Your task to perform on an android device: open a new tab in the chrome app Image 0: 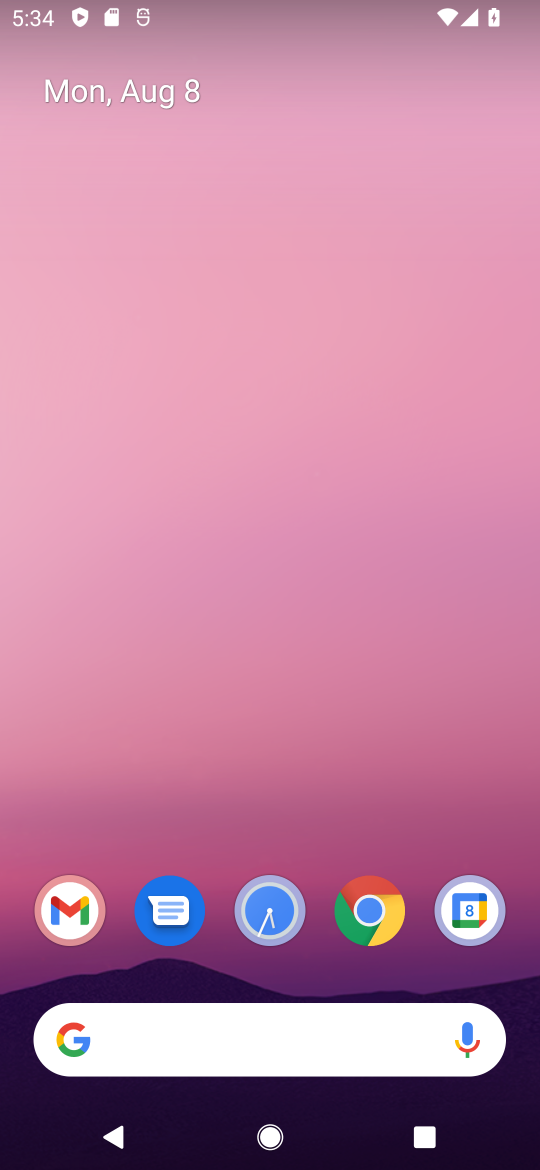
Step 0: click (375, 908)
Your task to perform on an android device: open a new tab in the chrome app Image 1: 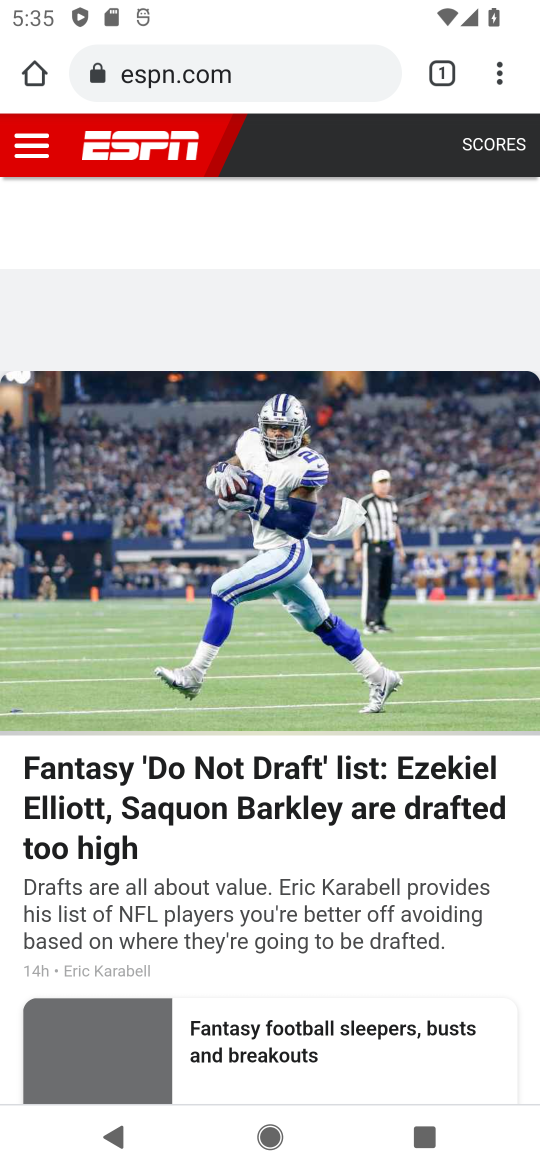
Step 1: click (499, 74)
Your task to perform on an android device: open a new tab in the chrome app Image 2: 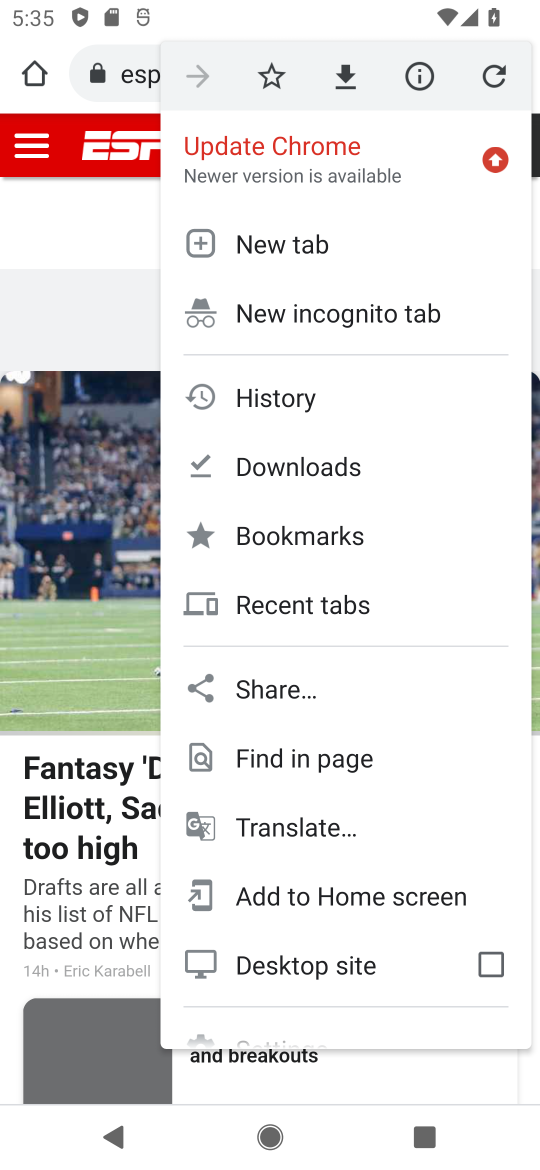
Step 2: click (317, 251)
Your task to perform on an android device: open a new tab in the chrome app Image 3: 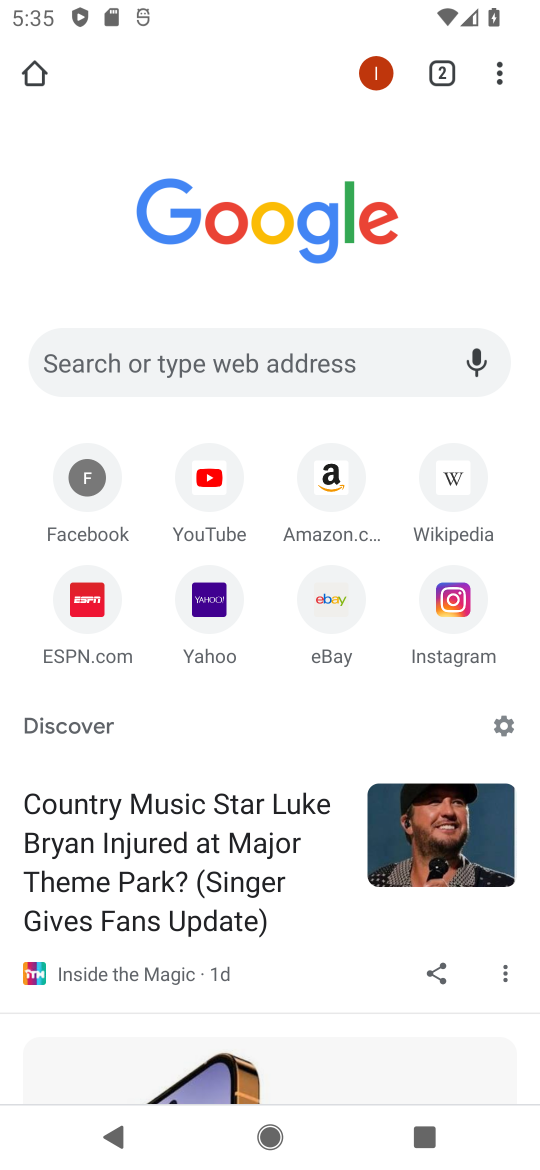
Step 3: task complete